Your task to perform on an android device: Open network settings Image 0: 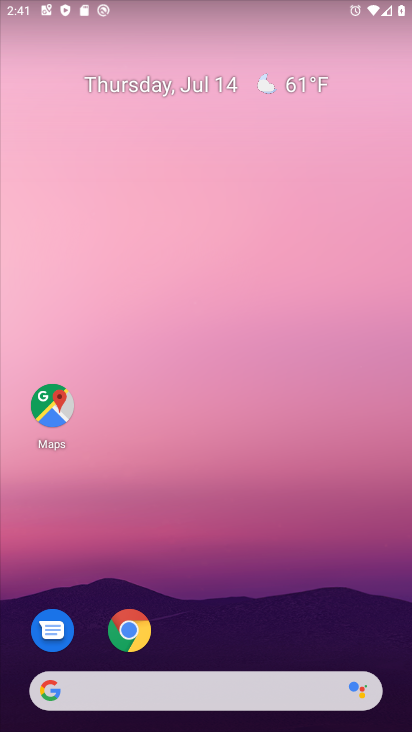
Step 0: press home button
Your task to perform on an android device: Open network settings Image 1: 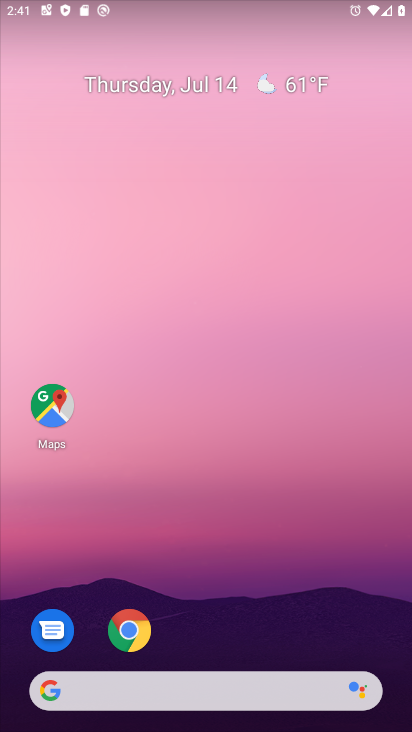
Step 1: drag from (209, 672) to (337, 87)
Your task to perform on an android device: Open network settings Image 2: 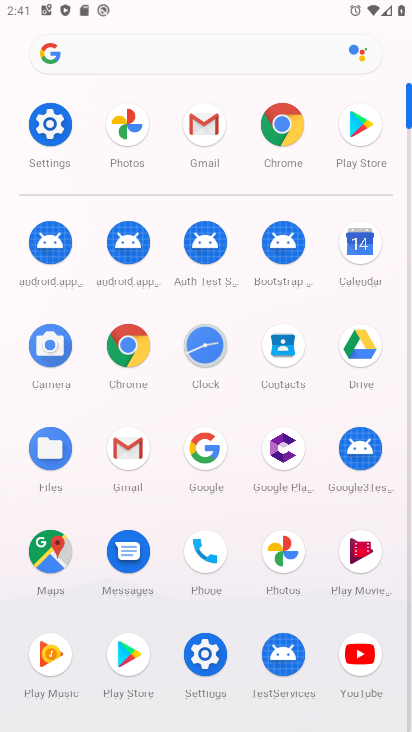
Step 2: click (45, 130)
Your task to perform on an android device: Open network settings Image 3: 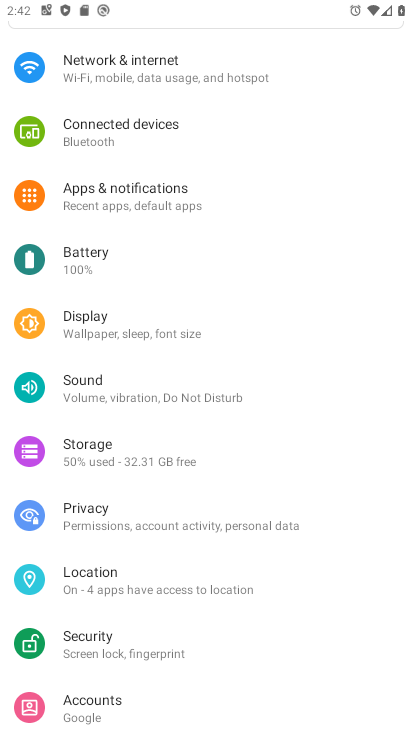
Step 3: click (154, 68)
Your task to perform on an android device: Open network settings Image 4: 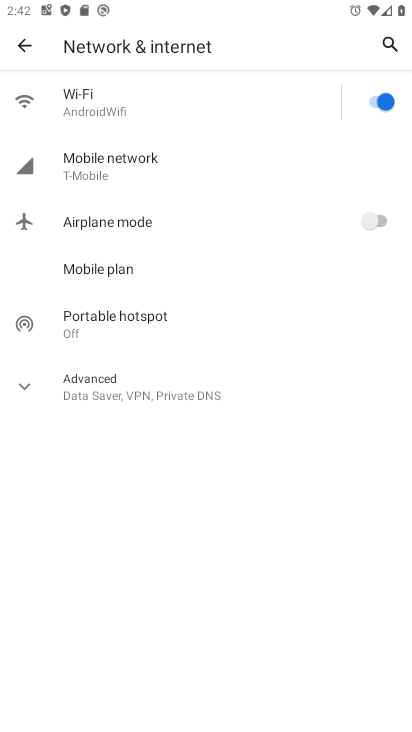
Step 4: task complete